Your task to perform on an android device: open a new tab in the chrome app Image 0: 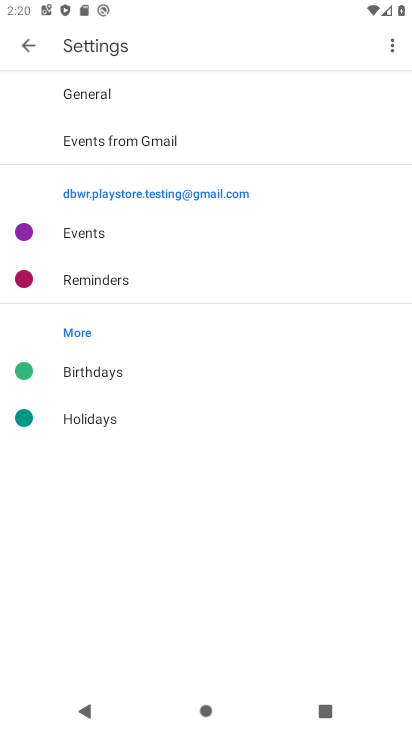
Step 0: press back button
Your task to perform on an android device: open a new tab in the chrome app Image 1: 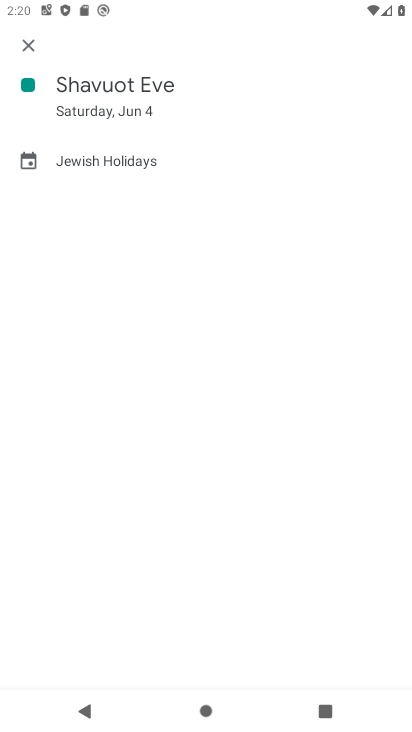
Step 1: press back button
Your task to perform on an android device: open a new tab in the chrome app Image 2: 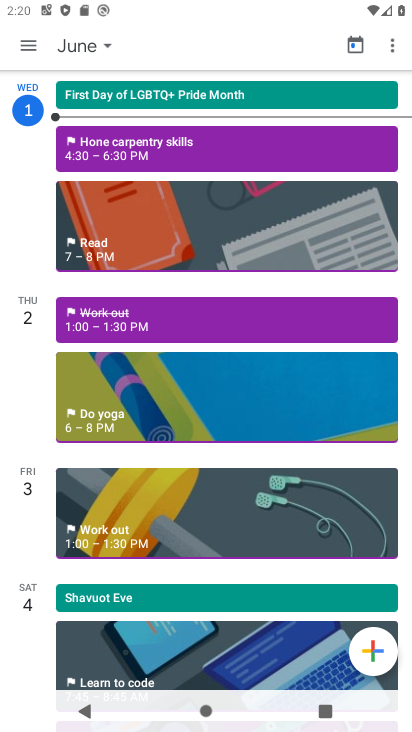
Step 2: press back button
Your task to perform on an android device: open a new tab in the chrome app Image 3: 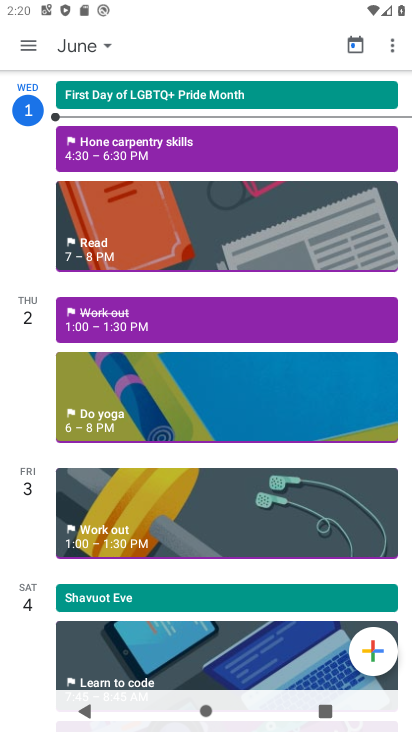
Step 3: press back button
Your task to perform on an android device: open a new tab in the chrome app Image 4: 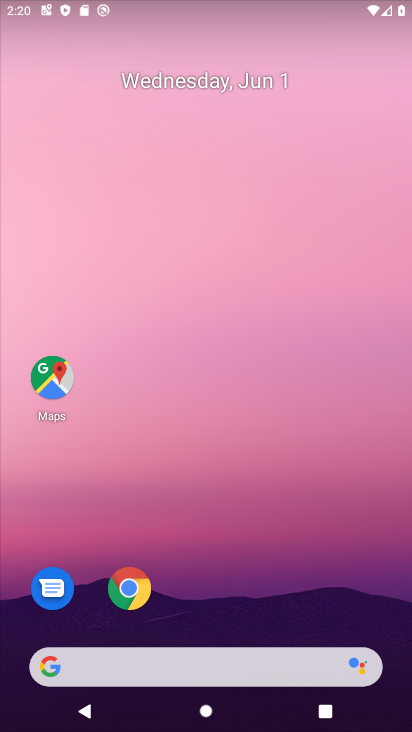
Step 4: press back button
Your task to perform on an android device: open a new tab in the chrome app Image 5: 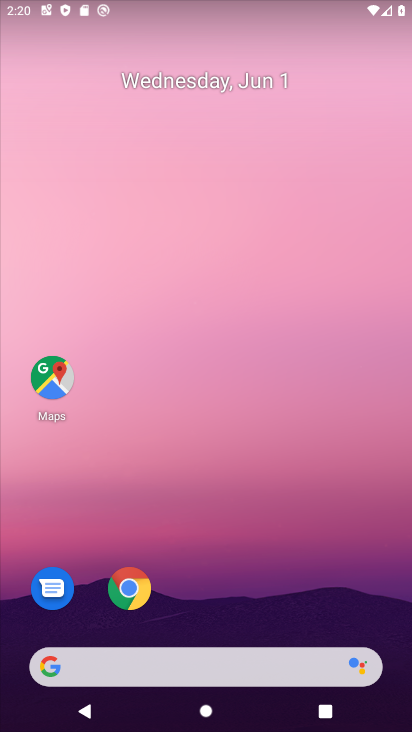
Step 5: click (135, 587)
Your task to perform on an android device: open a new tab in the chrome app Image 6: 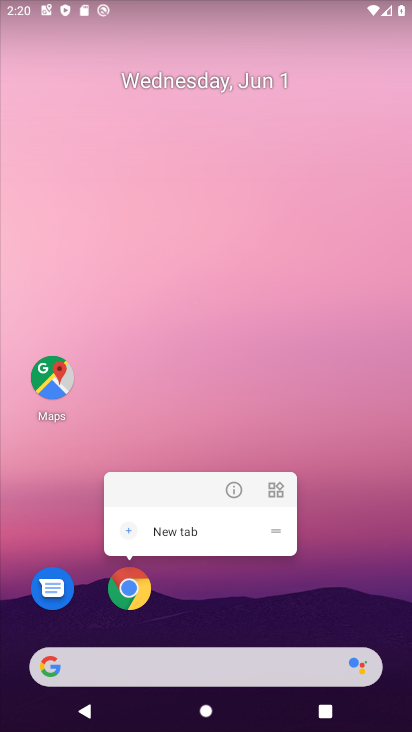
Step 6: click (127, 593)
Your task to perform on an android device: open a new tab in the chrome app Image 7: 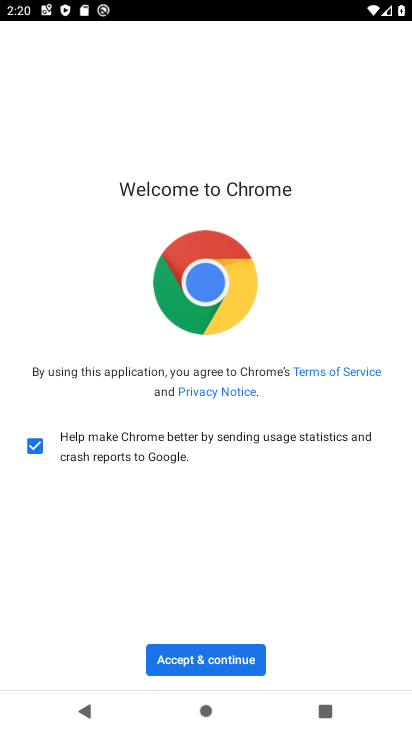
Step 7: click (242, 658)
Your task to perform on an android device: open a new tab in the chrome app Image 8: 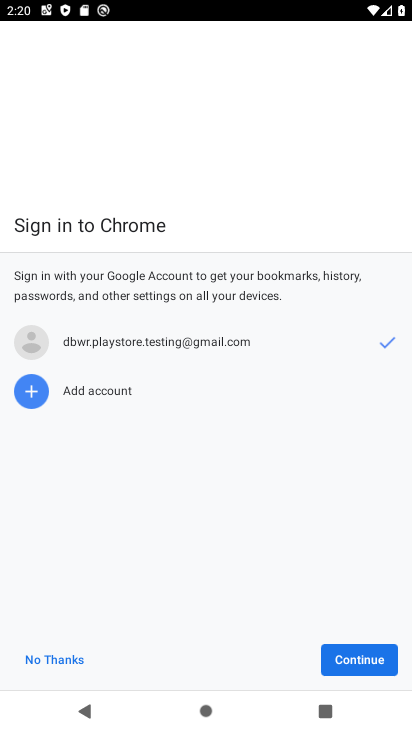
Step 8: click (362, 664)
Your task to perform on an android device: open a new tab in the chrome app Image 9: 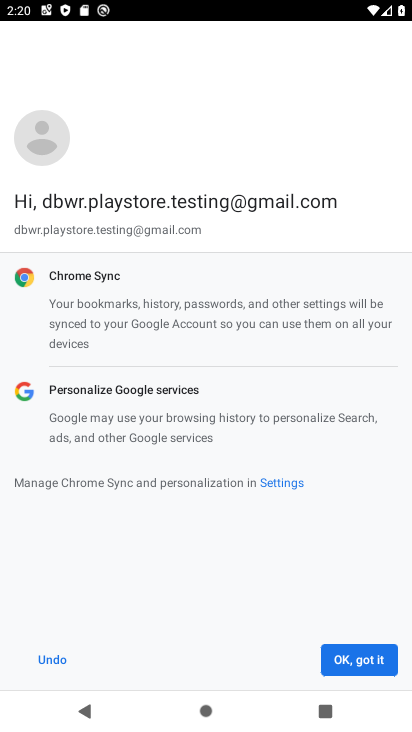
Step 9: click (365, 662)
Your task to perform on an android device: open a new tab in the chrome app Image 10: 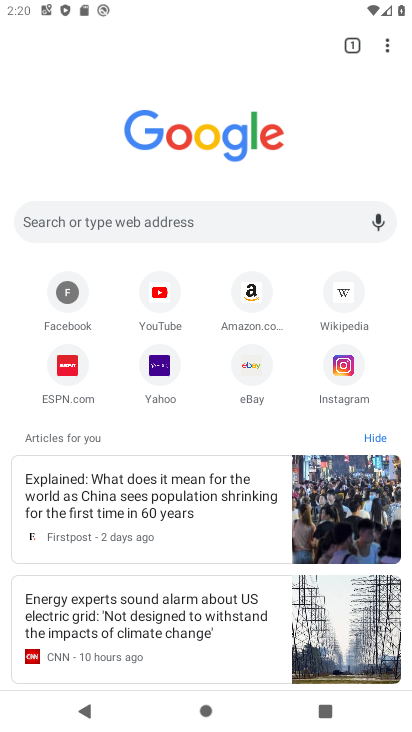
Step 10: task complete